Your task to perform on an android device: turn off priority inbox in the gmail app Image 0: 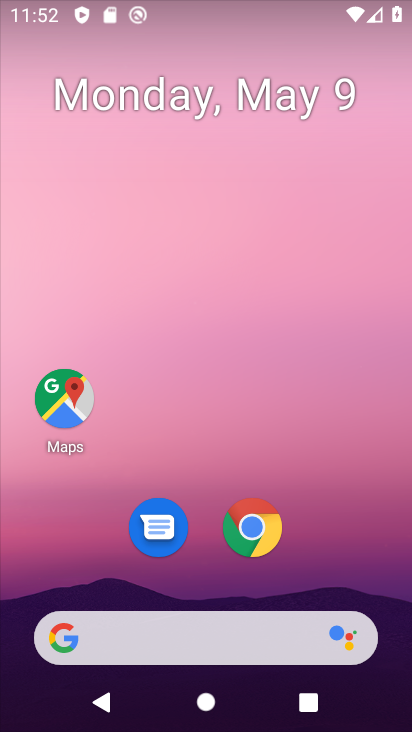
Step 0: drag from (161, 591) to (250, 169)
Your task to perform on an android device: turn off priority inbox in the gmail app Image 1: 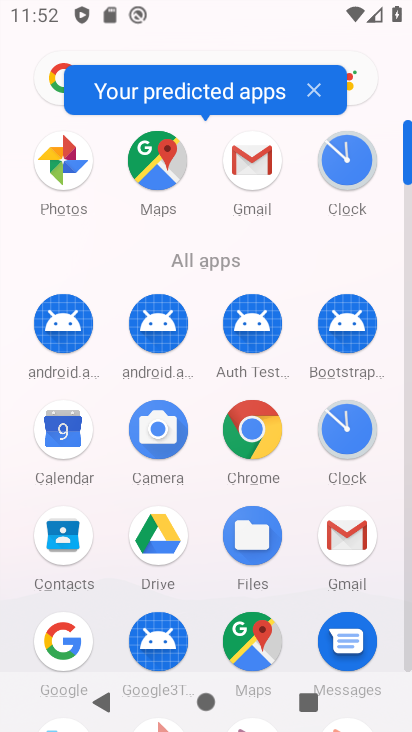
Step 1: click (356, 534)
Your task to perform on an android device: turn off priority inbox in the gmail app Image 2: 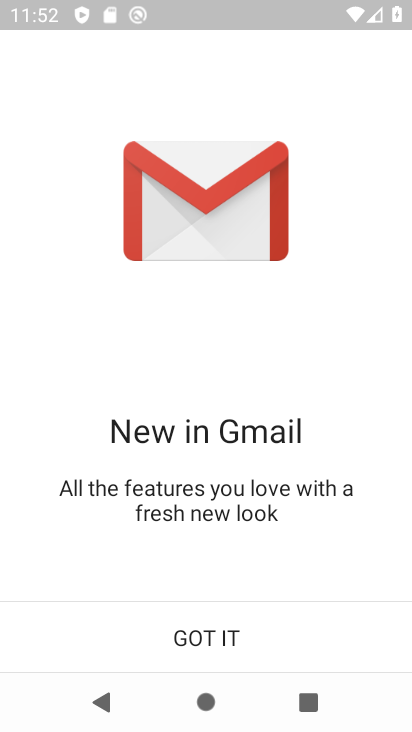
Step 2: click (250, 650)
Your task to perform on an android device: turn off priority inbox in the gmail app Image 3: 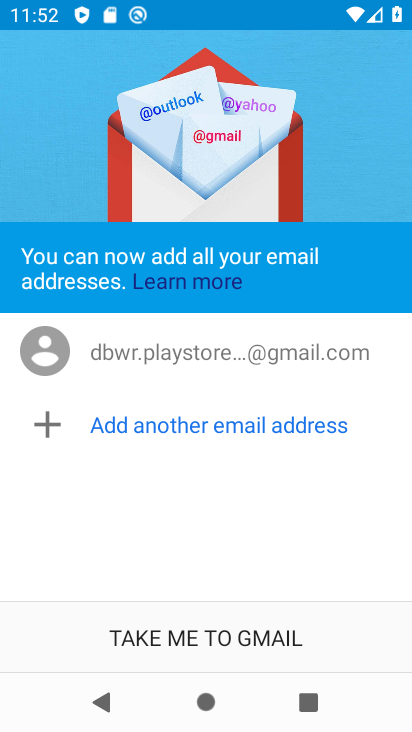
Step 3: click (250, 650)
Your task to perform on an android device: turn off priority inbox in the gmail app Image 4: 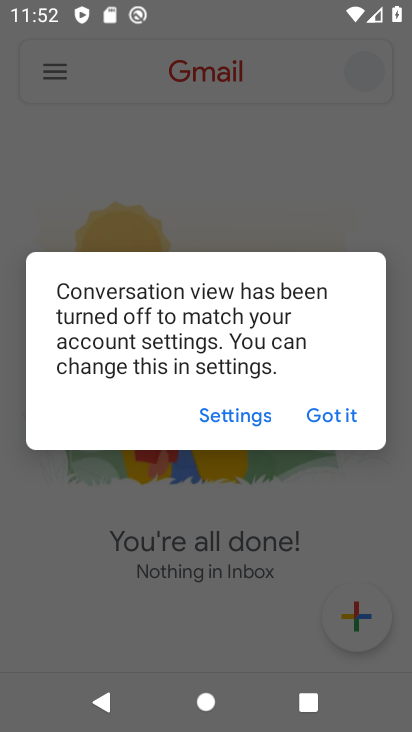
Step 4: click (346, 422)
Your task to perform on an android device: turn off priority inbox in the gmail app Image 5: 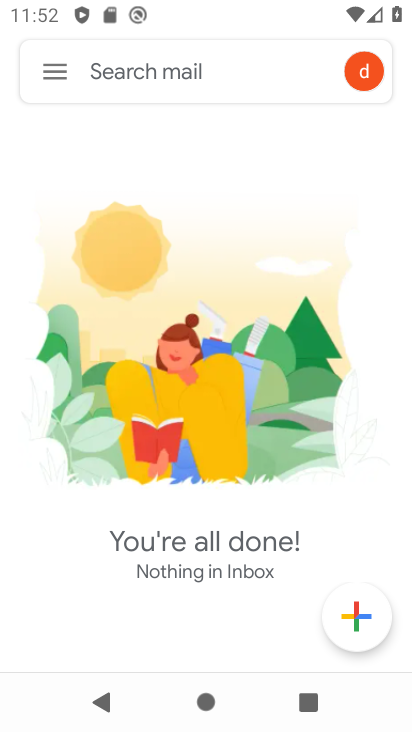
Step 5: click (68, 79)
Your task to perform on an android device: turn off priority inbox in the gmail app Image 6: 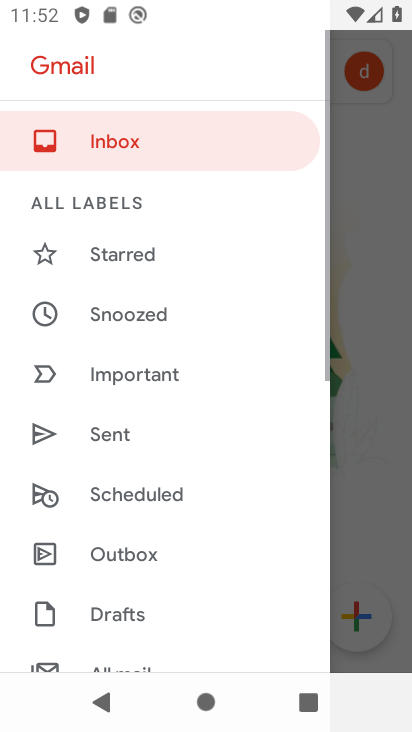
Step 6: drag from (137, 611) to (236, 280)
Your task to perform on an android device: turn off priority inbox in the gmail app Image 7: 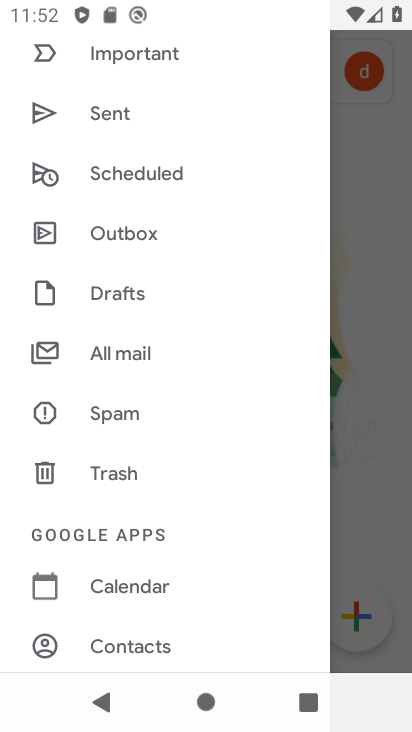
Step 7: drag from (162, 641) to (266, 275)
Your task to perform on an android device: turn off priority inbox in the gmail app Image 8: 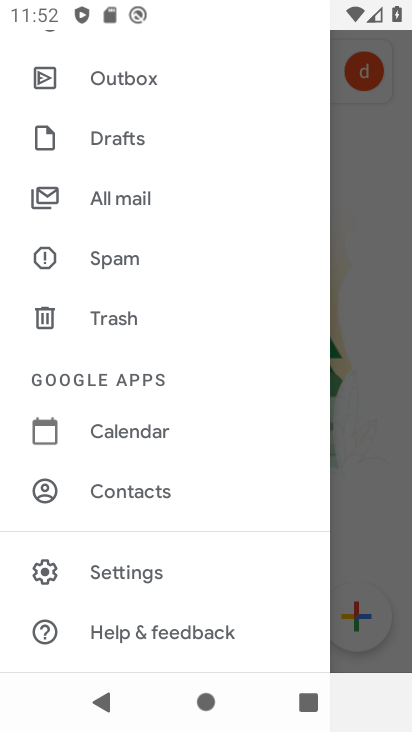
Step 8: click (164, 564)
Your task to perform on an android device: turn off priority inbox in the gmail app Image 9: 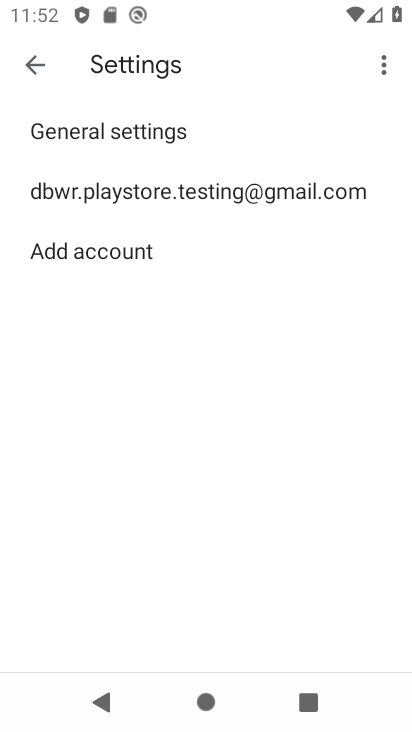
Step 9: click (287, 192)
Your task to perform on an android device: turn off priority inbox in the gmail app Image 10: 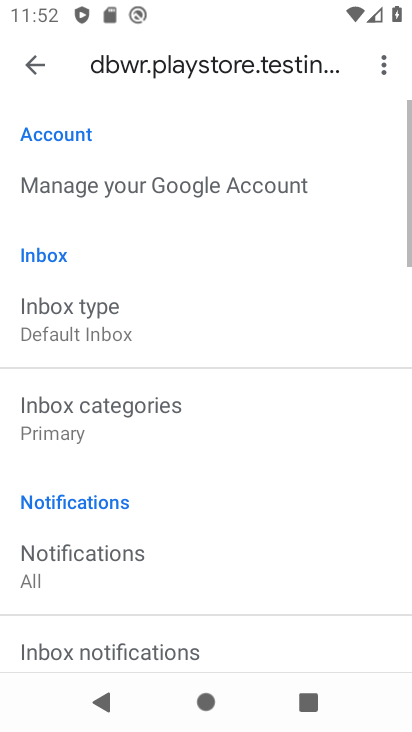
Step 10: drag from (201, 646) to (347, 205)
Your task to perform on an android device: turn off priority inbox in the gmail app Image 11: 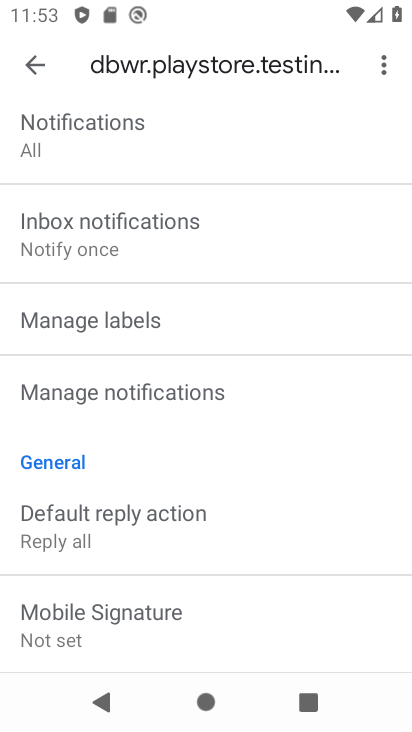
Step 11: drag from (182, 645) to (252, 673)
Your task to perform on an android device: turn off priority inbox in the gmail app Image 12: 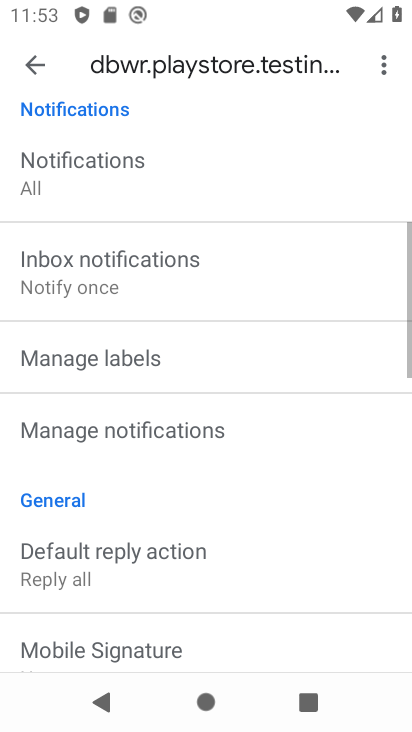
Step 12: drag from (274, 242) to (258, 689)
Your task to perform on an android device: turn off priority inbox in the gmail app Image 13: 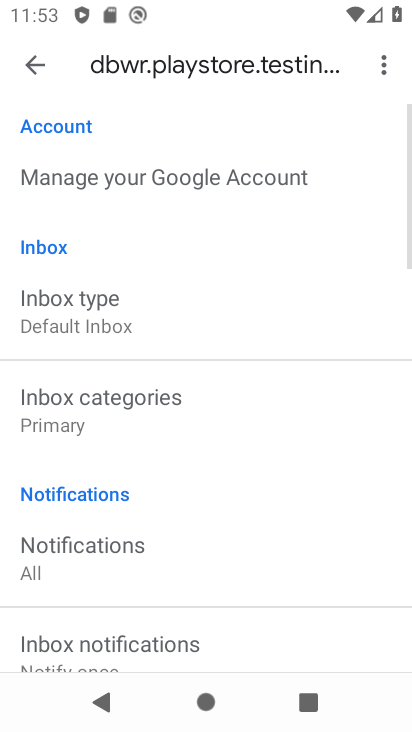
Step 13: click (209, 338)
Your task to perform on an android device: turn off priority inbox in the gmail app Image 14: 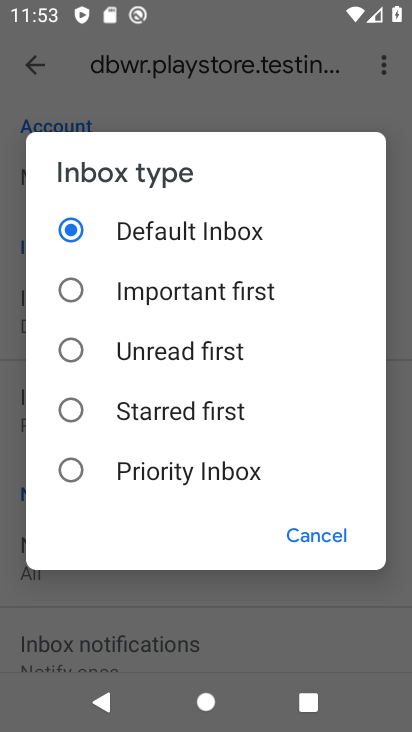
Step 14: task complete